Your task to perform on an android device: toggle show notifications on the lock screen Image 0: 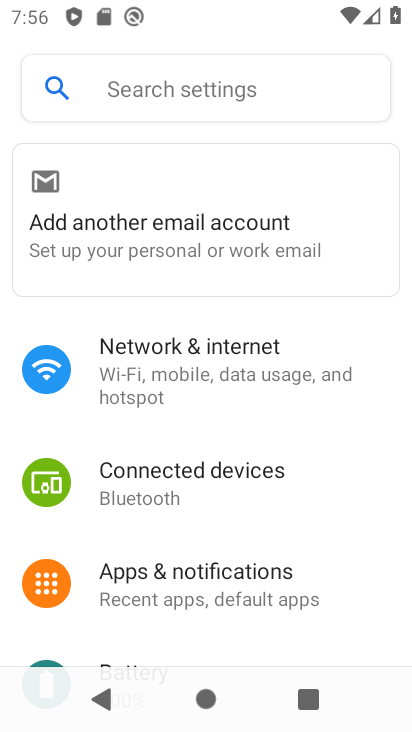
Step 0: click (260, 582)
Your task to perform on an android device: toggle show notifications on the lock screen Image 1: 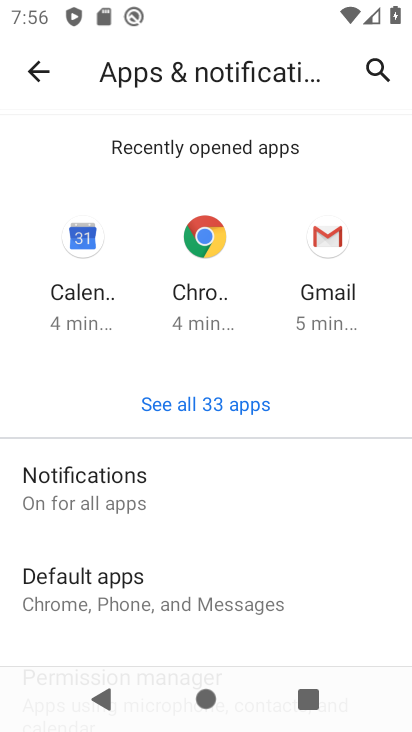
Step 1: click (91, 481)
Your task to perform on an android device: toggle show notifications on the lock screen Image 2: 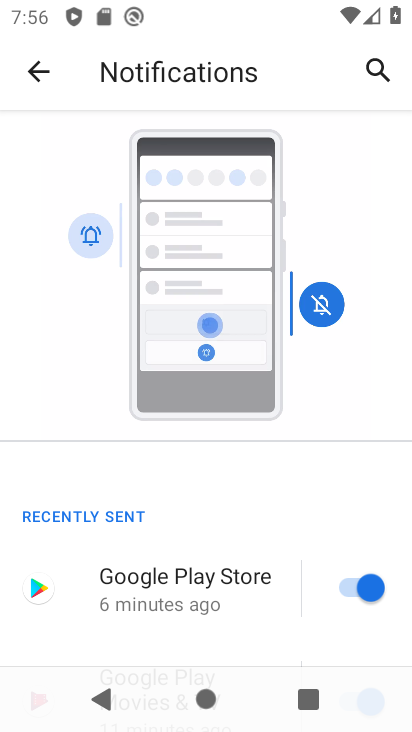
Step 2: drag from (159, 658) to (167, 260)
Your task to perform on an android device: toggle show notifications on the lock screen Image 3: 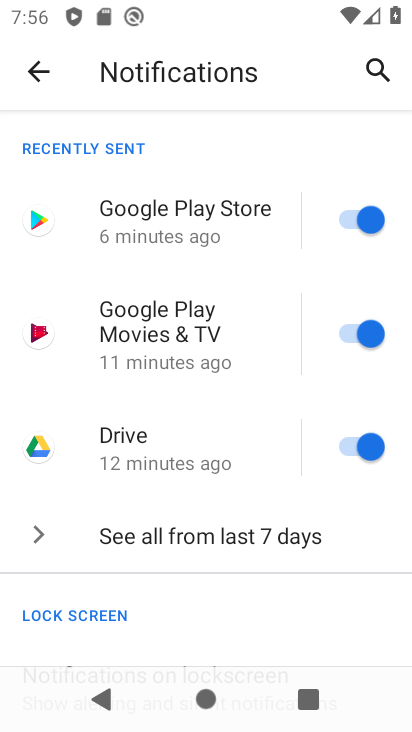
Step 3: drag from (176, 629) to (168, 390)
Your task to perform on an android device: toggle show notifications on the lock screen Image 4: 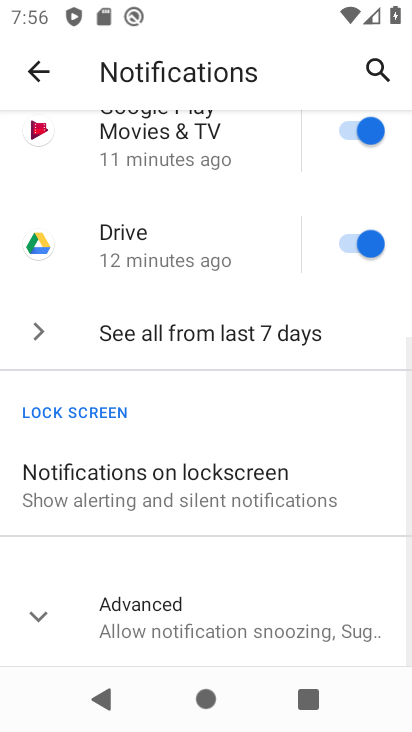
Step 4: click (167, 484)
Your task to perform on an android device: toggle show notifications on the lock screen Image 5: 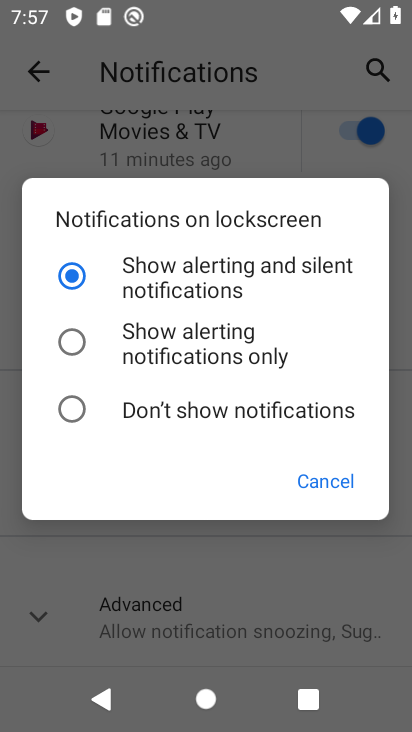
Step 5: click (72, 340)
Your task to perform on an android device: toggle show notifications on the lock screen Image 6: 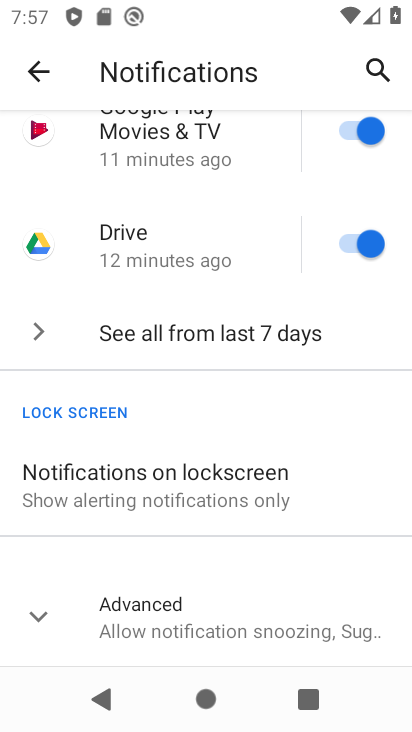
Step 6: task complete